Your task to perform on an android device: check out phone information Image 0: 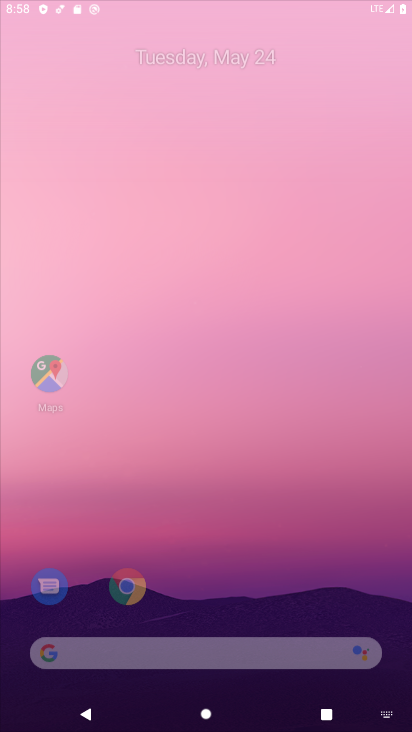
Step 0: click (215, 76)
Your task to perform on an android device: check out phone information Image 1: 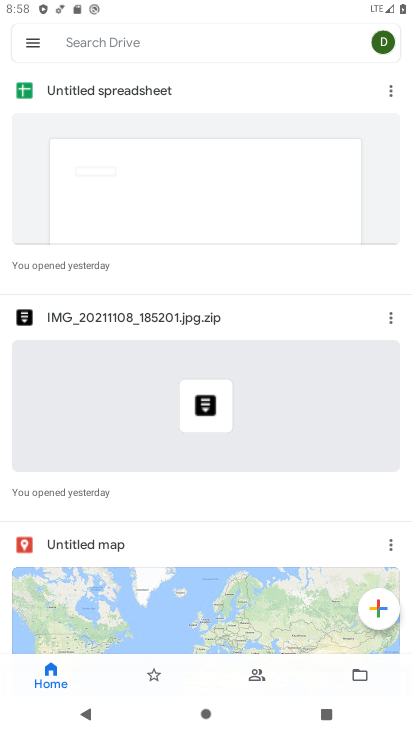
Step 1: press home button
Your task to perform on an android device: check out phone information Image 2: 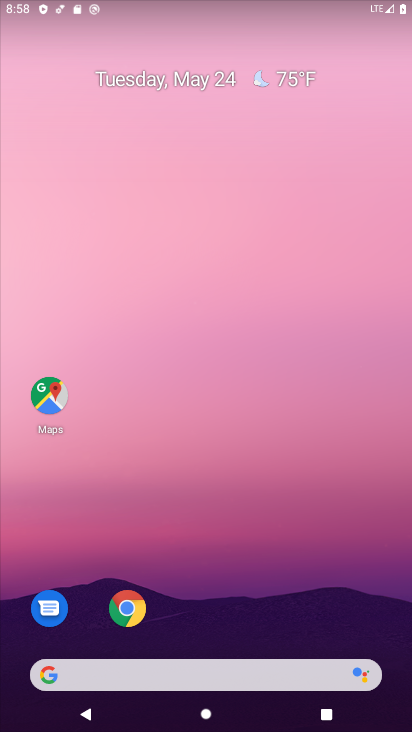
Step 2: drag from (273, 551) to (164, 28)
Your task to perform on an android device: check out phone information Image 3: 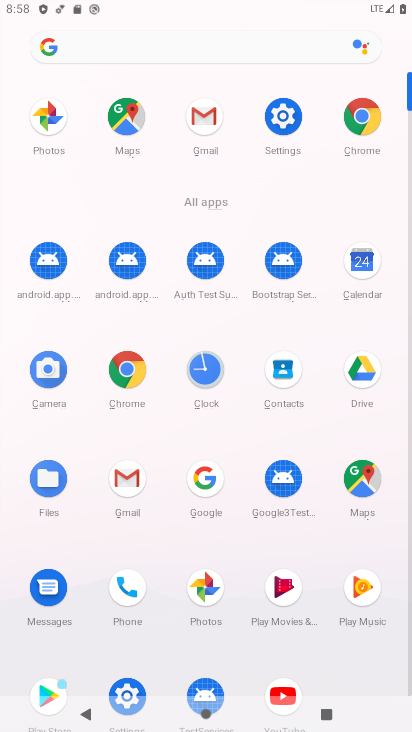
Step 3: click (133, 681)
Your task to perform on an android device: check out phone information Image 4: 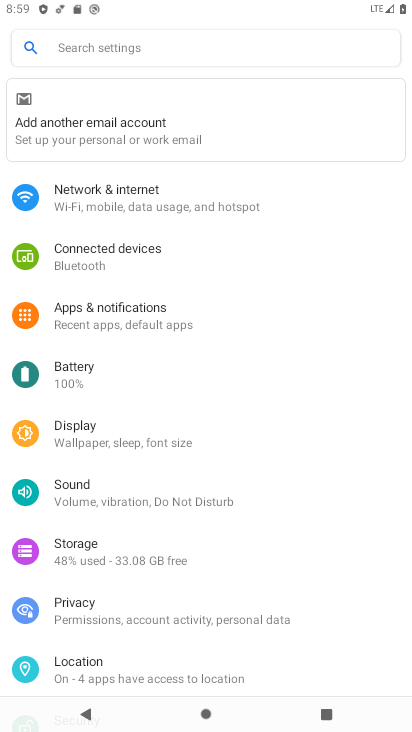
Step 4: drag from (254, 609) to (231, 70)
Your task to perform on an android device: check out phone information Image 5: 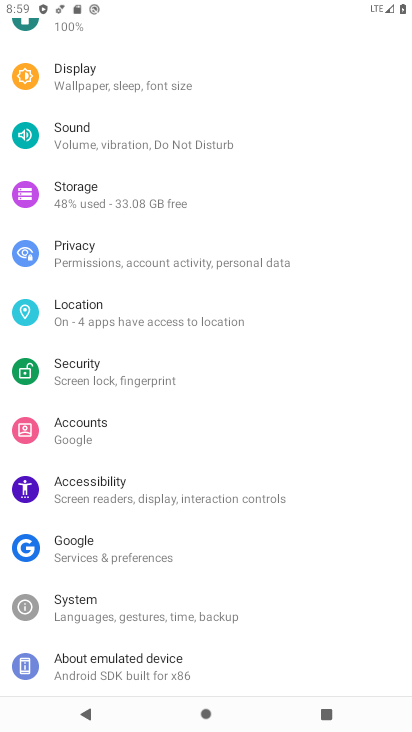
Step 5: click (223, 660)
Your task to perform on an android device: check out phone information Image 6: 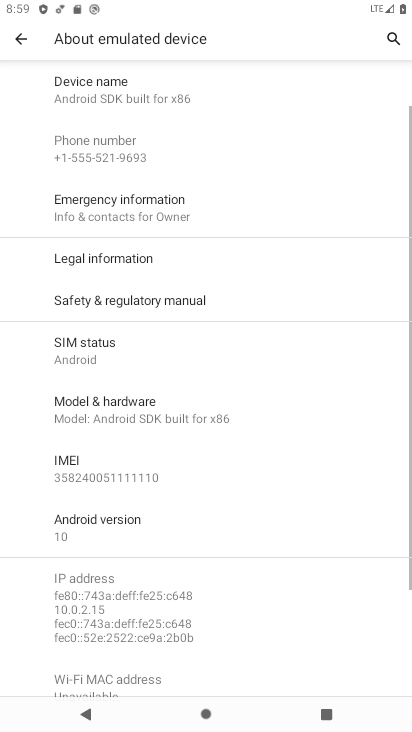
Step 6: task complete